Your task to perform on an android device: Open Google Chrome and open the bookmarks view Image 0: 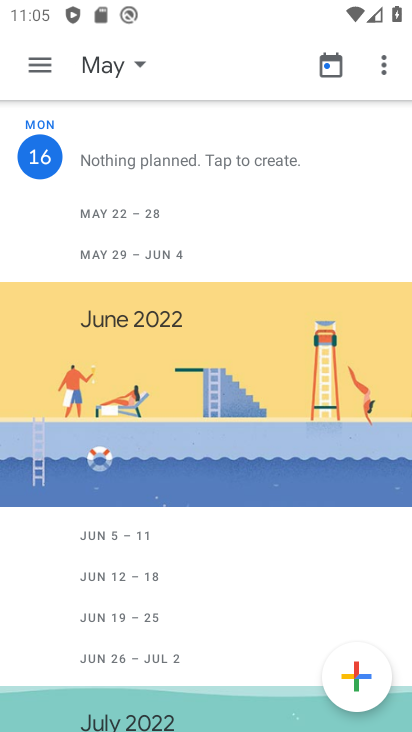
Step 0: drag from (214, 635) to (276, 707)
Your task to perform on an android device: Open Google Chrome and open the bookmarks view Image 1: 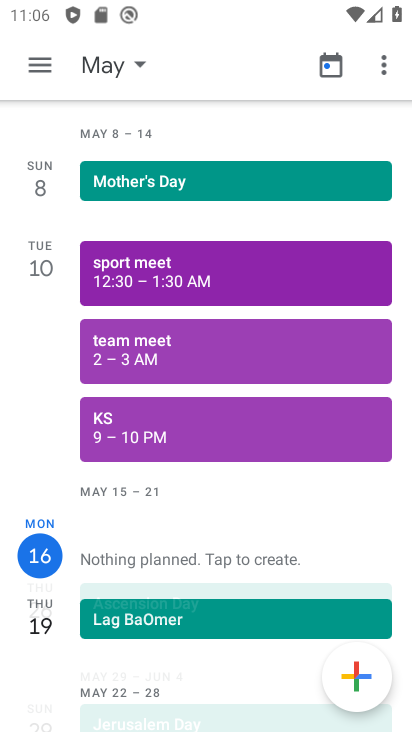
Step 1: press home button
Your task to perform on an android device: Open Google Chrome and open the bookmarks view Image 2: 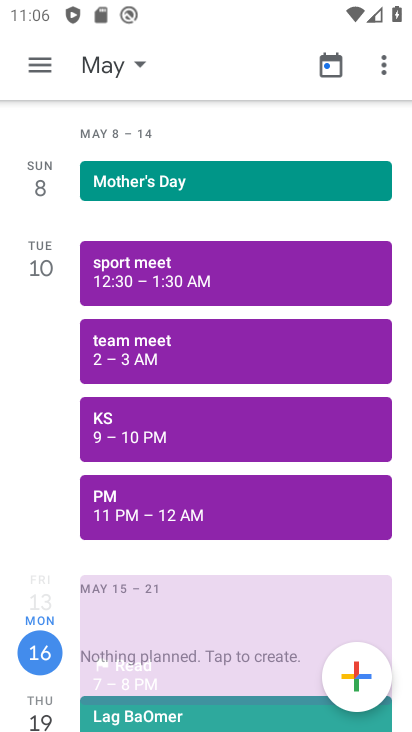
Step 2: press home button
Your task to perform on an android device: Open Google Chrome and open the bookmarks view Image 3: 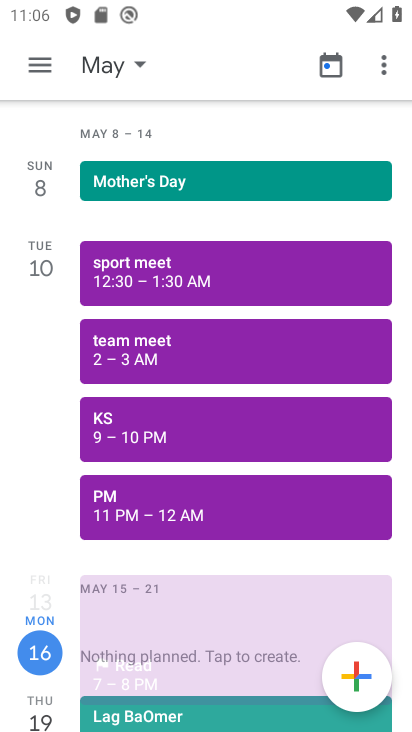
Step 3: drag from (244, 593) to (399, 3)
Your task to perform on an android device: Open Google Chrome and open the bookmarks view Image 4: 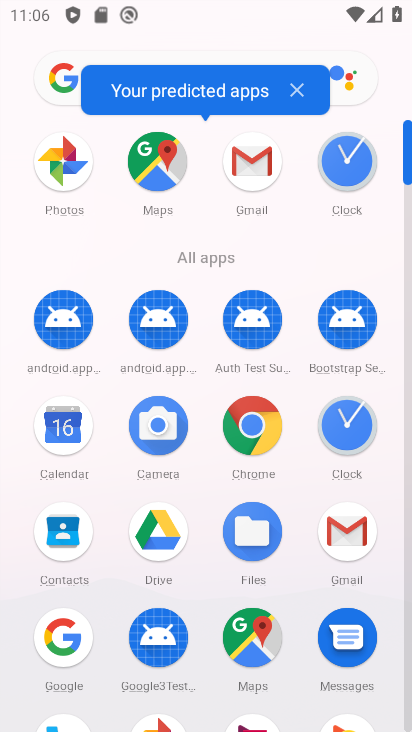
Step 4: click (246, 424)
Your task to perform on an android device: Open Google Chrome and open the bookmarks view Image 5: 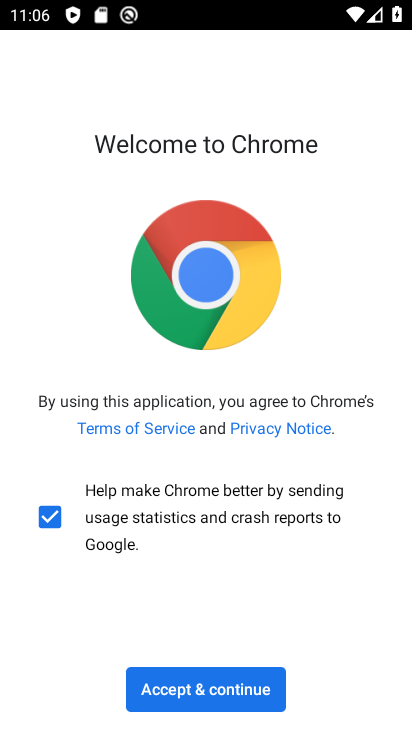
Step 5: click (239, 714)
Your task to perform on an android device: Open Google Chrome and open the bookmarks view Image 6: 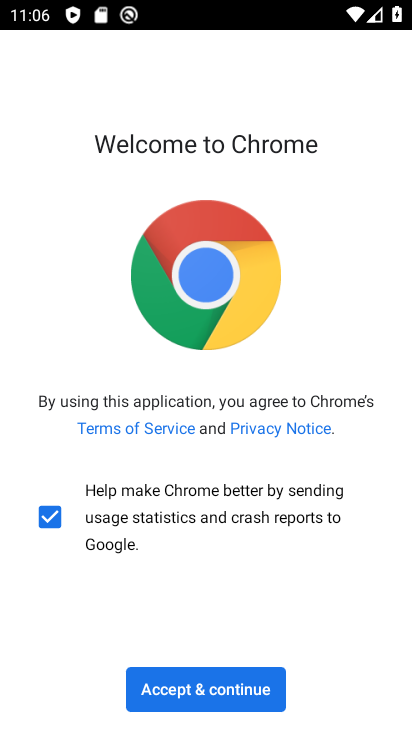
Step 6: click (236, 680)
Your task to perform on an android device: Open Google Chrome and open the bookmarks view Image 7: 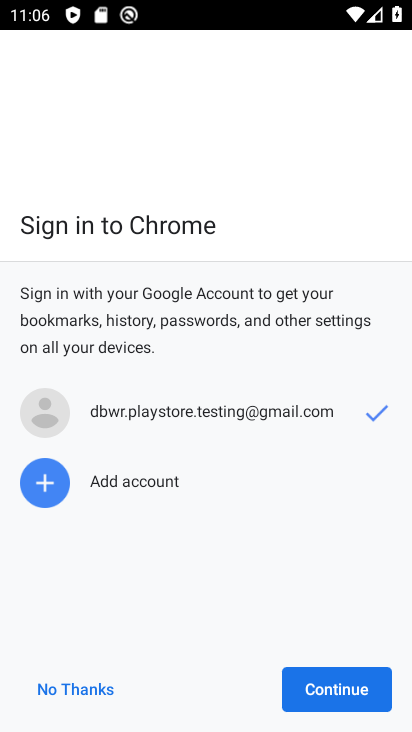
Step 7: click (79, 692)
Your task to perform on an android device: Open Google Chrome and open the bookmarks view Image 8: 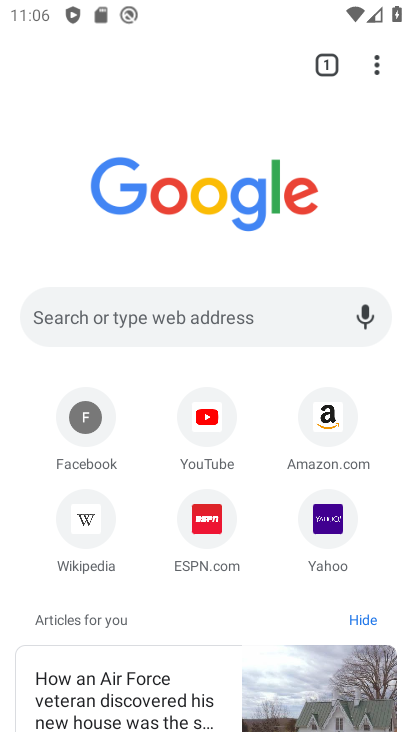
Step 8: click (377, 72)
Your task to perform on an android device: Open Google Chrome and open the bookmarks view Image 9: 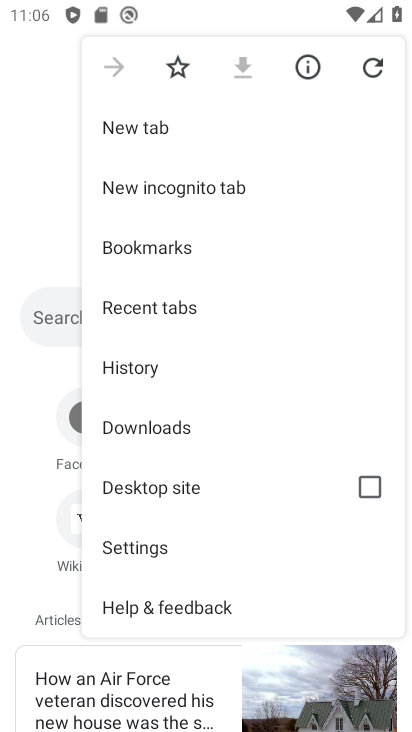
Step 9: click (176, 243)
Your task to perform on an android device: Open Google Chrome and open the bookmarks view Image 10: 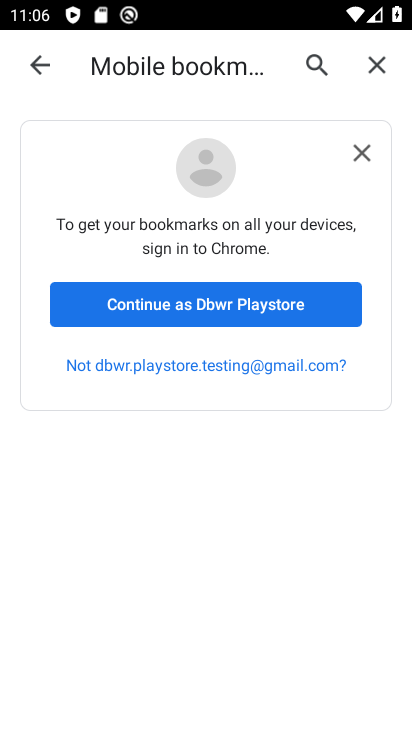
Step 10: task complete